Your task to perform on an android device: install app "Adobe Acrobat Reader" Image 0: 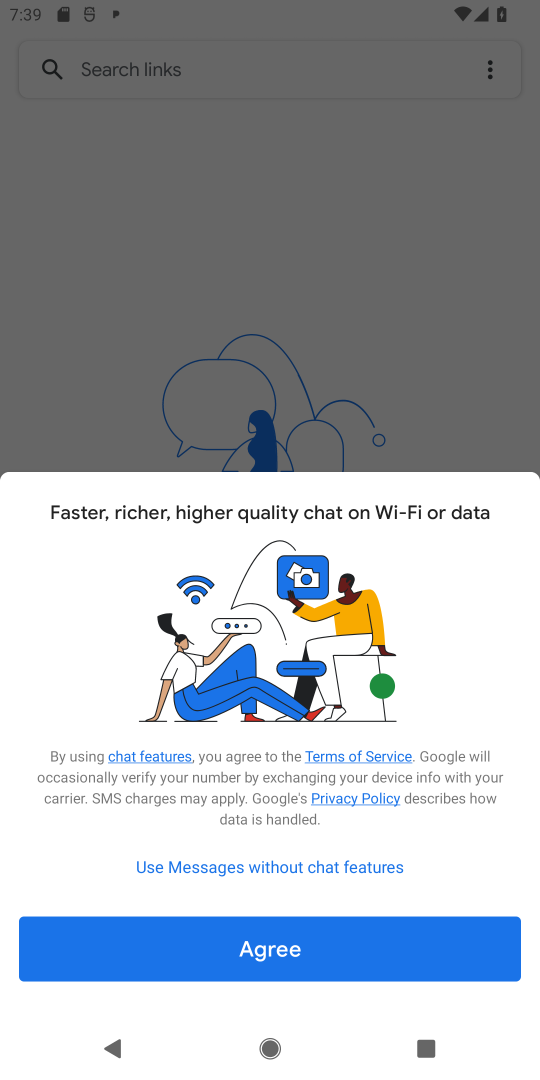
Step 0: press home button
Your task to perform on an android device: install app "Adobe Acrobat Reader" Image 1: 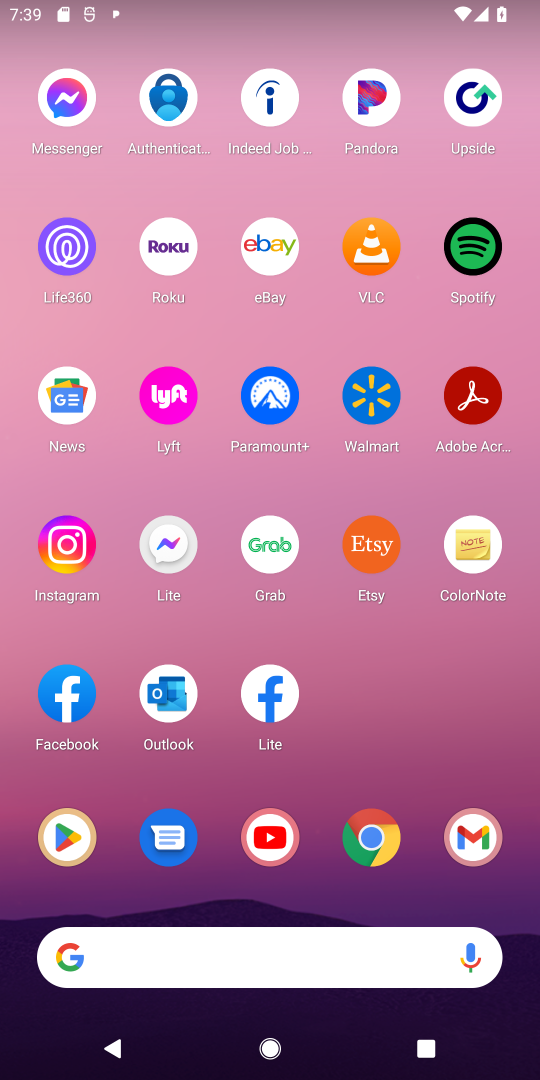
Step 1: click (75, 834)
Your task to perform on an android device: install app "Adobe Acrobat Reader" Image 2: 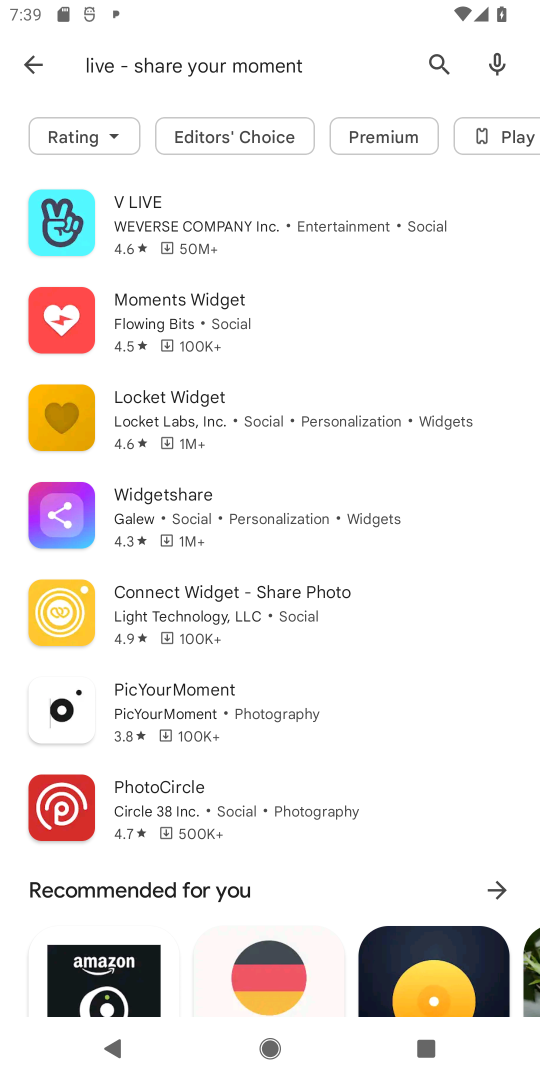
Step 2: click (440, 66)
Your task to perform on an android device: install app "Adobe Acrobat Reader" Image 3: 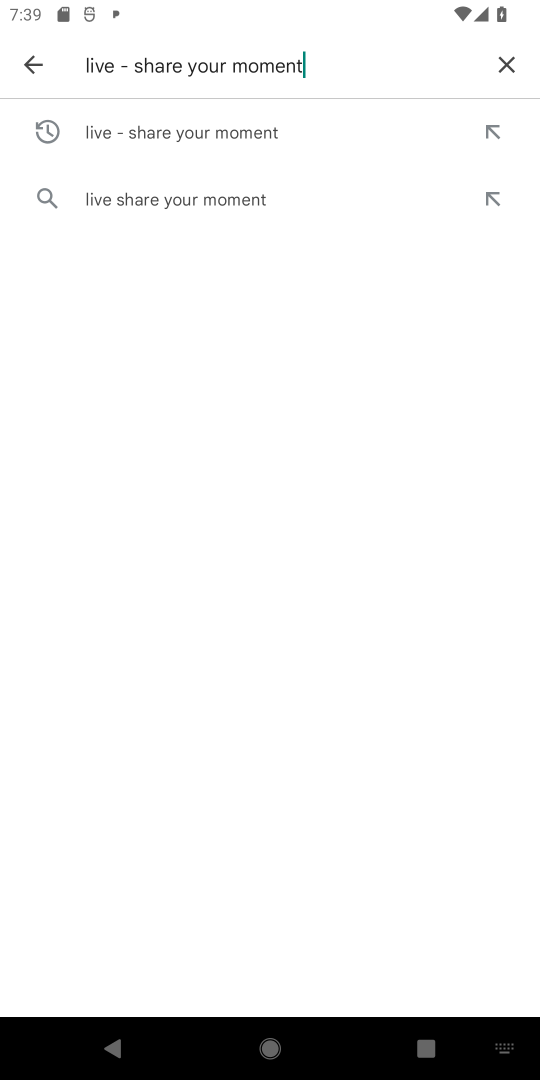
Step 3: click (510, 76)
Your task to perform on an android device: install app "Adobe Acrobat Reader" Image 4: 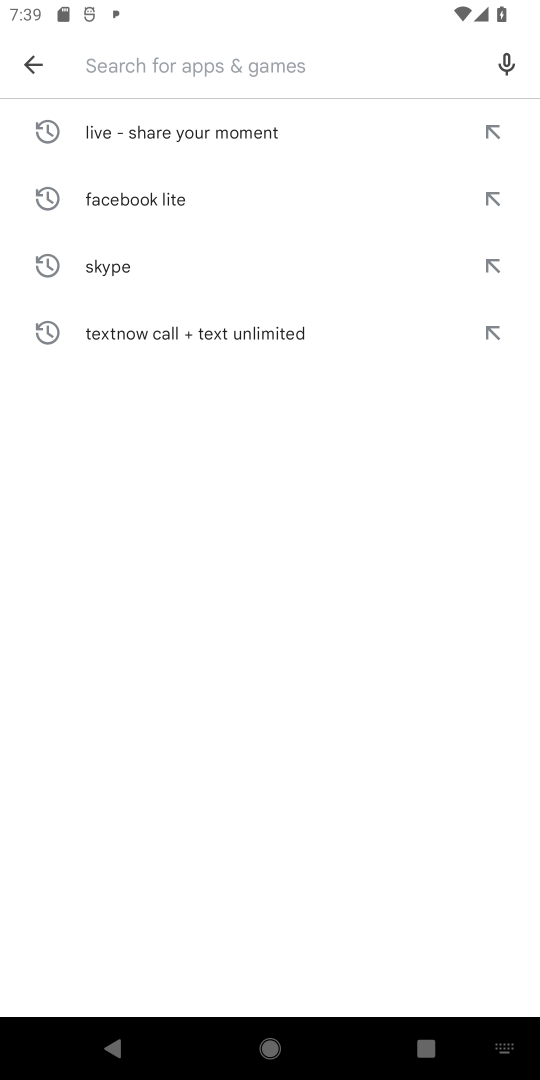
Step 4: type "Adobe Acrobat Reader"
Your task to perform on an android device: install app "Adobe Acrobat Reader" Image 5: 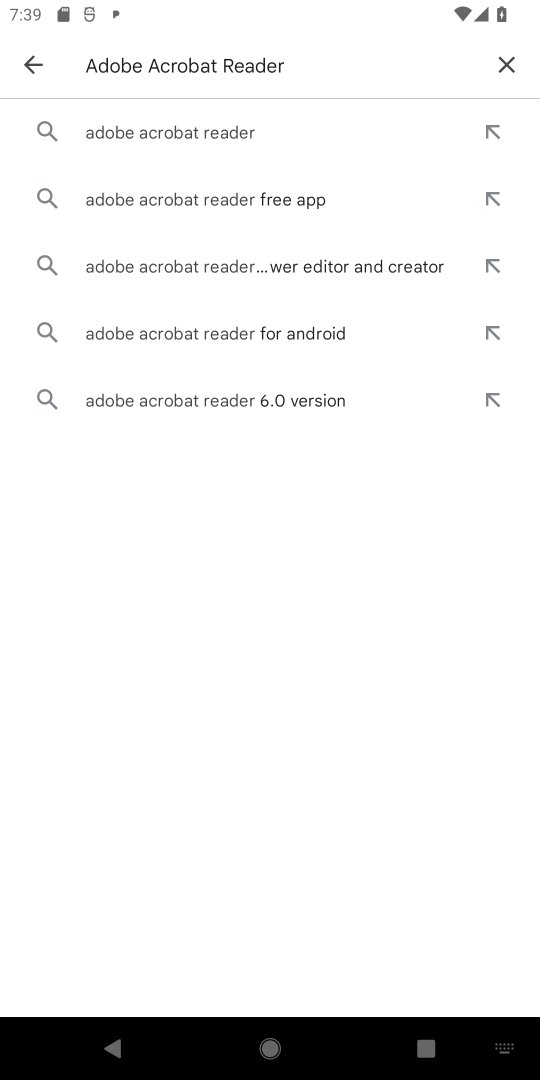
Step 5: click (156, 143)
Your task to perform on an android device: install app "Adobe Acrobat Reader" Image 6: 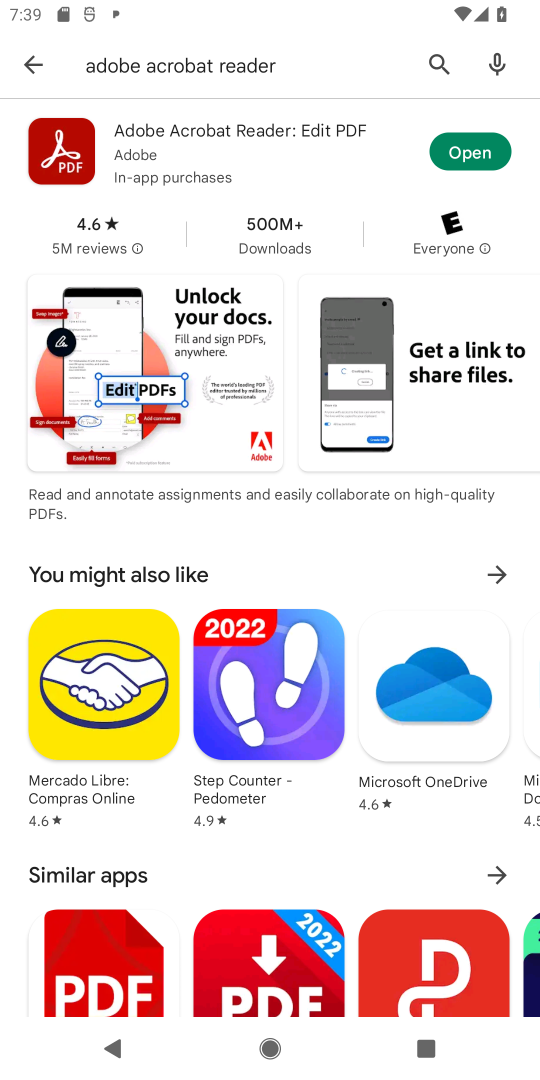
Step 6: task complete